Your task to perform on an android device: Open Wikipedia Image 0: 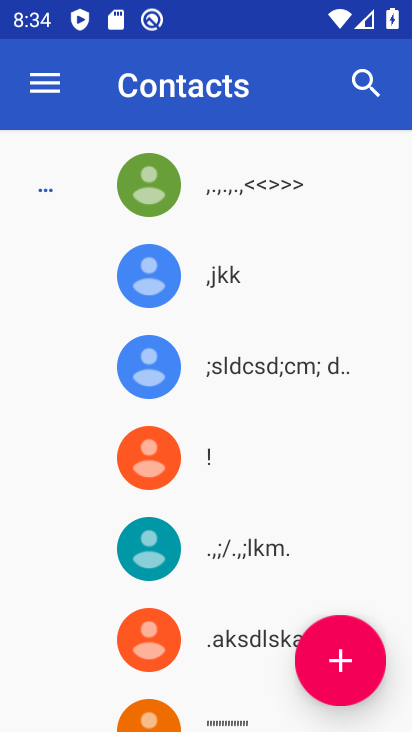
Step 0: press home button
Your task to perform on an android device: Open Wikipedia Image 1: 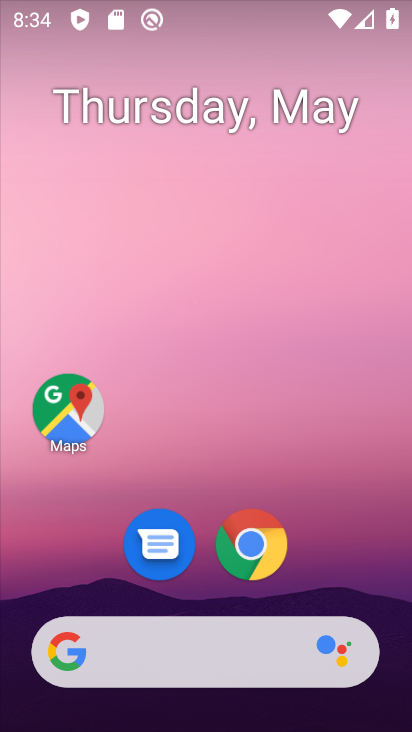
Step 1: click (246, 538)
Your task to perform on an android device: Open Wikipedia Image 2: 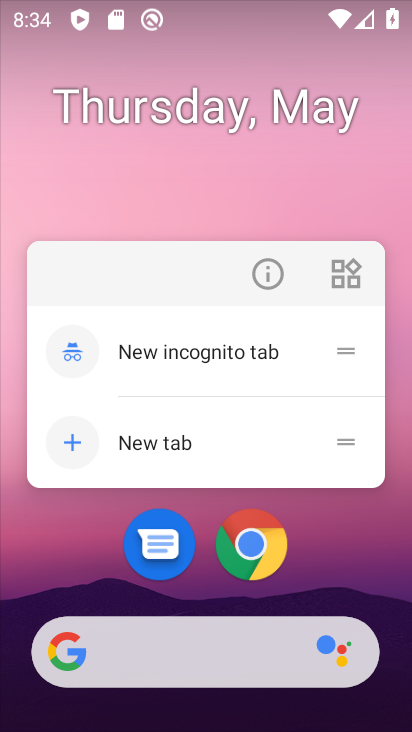
Step 2: click (244, 549)
Your task to perform on an android device: Open Wikipedia Image 3: 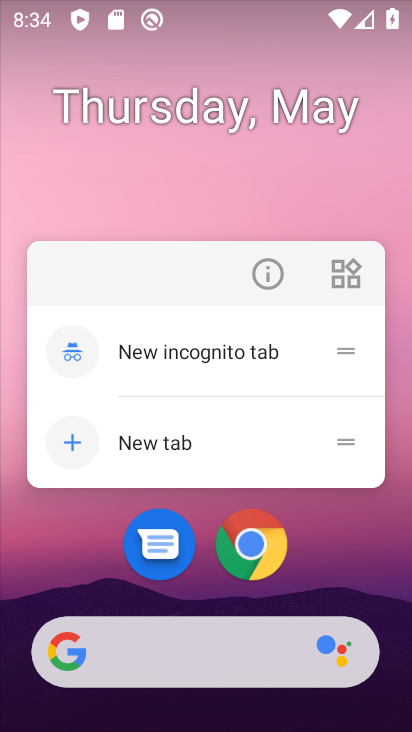
Step 3: click (240, 539)
Your task to perform on an android device: Open Wikipedia Image 4: 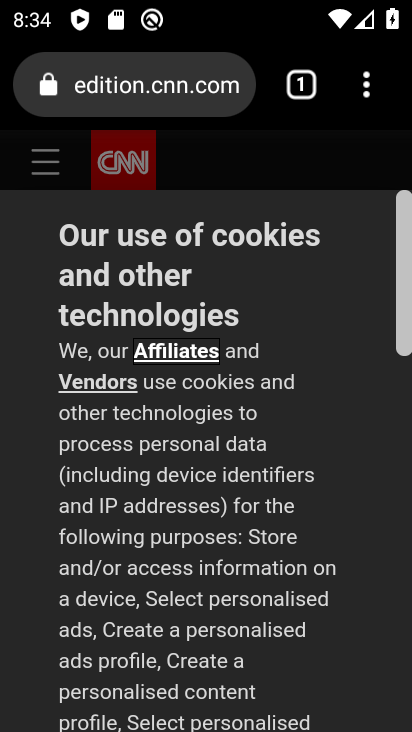
Step 4: click (186, 88)
Your task to perform on an android device: Open Wikipedia Image 5: 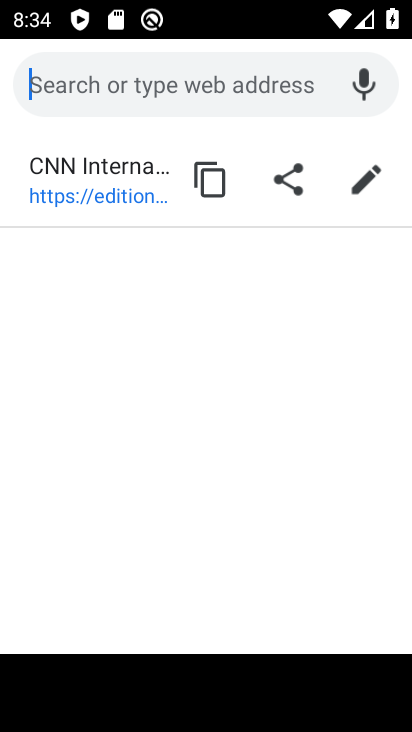
Step 5: type "wikipedia"
Your task to perform on an android device: Open Wikipedia Image 6: 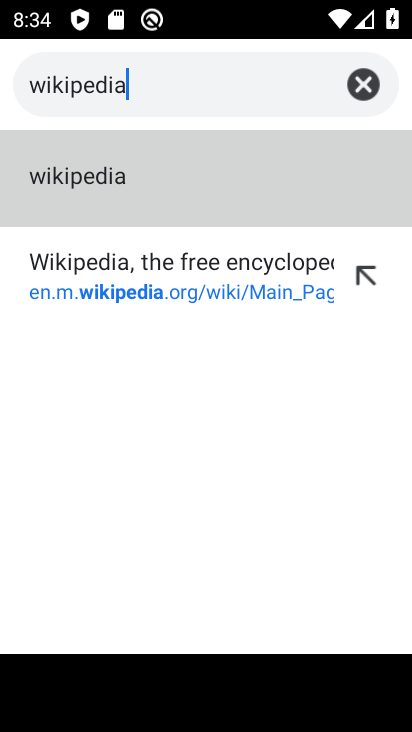
Step 6: click (68, 165)
Your task to perform on an android device: Open Wikipedia Image 7: 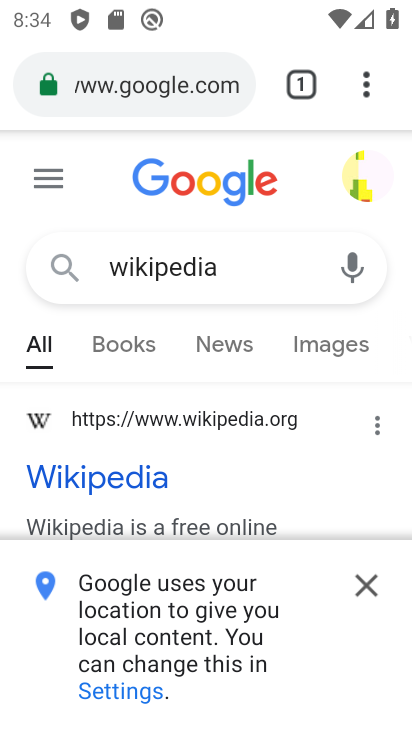
Step 7: click (365, 589)
Your task to perform on an android device: Open Wikipedia Image 8: 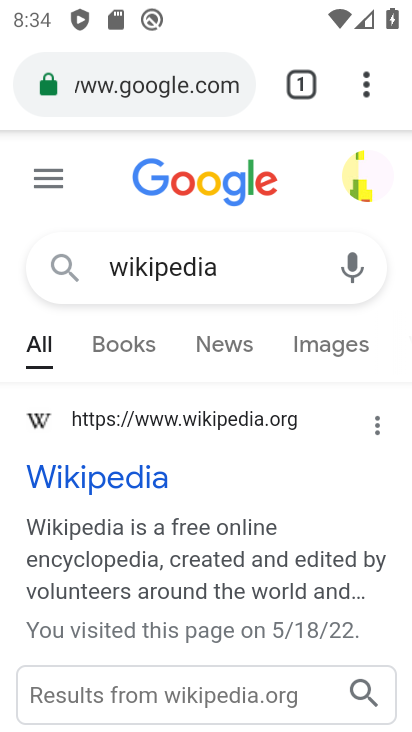
Step 8: click (125, 484)
Your task to perform on an android device: Open Wikipedia Image 9: 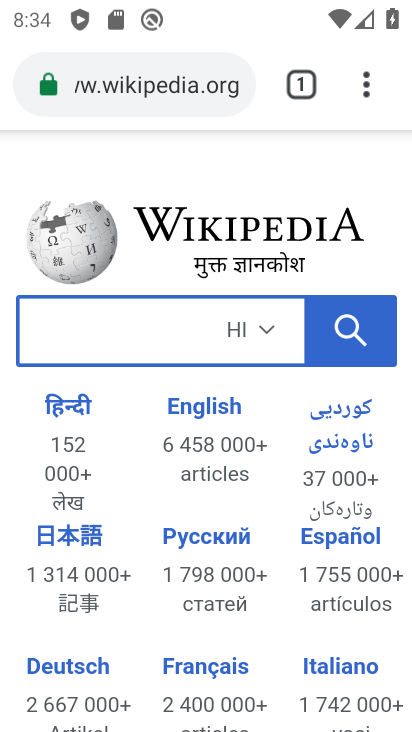
Step 9: task complete